Your task to perform on an android device: clear all cookies in the chrome app Image 0: 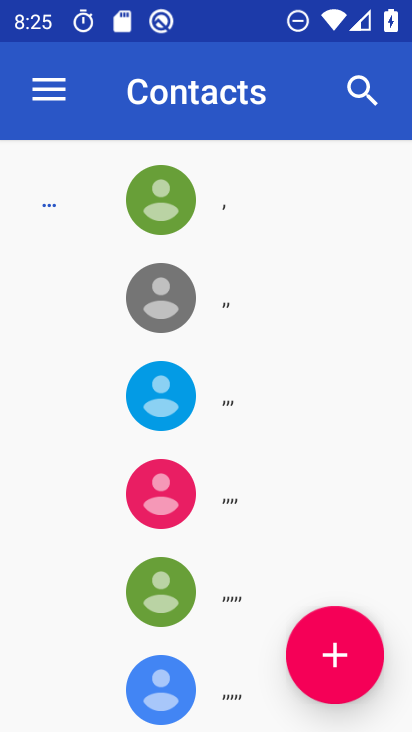
Step 0: press home button
Your task to perform on an android device: clear all cookies in the chrome app Image 1: 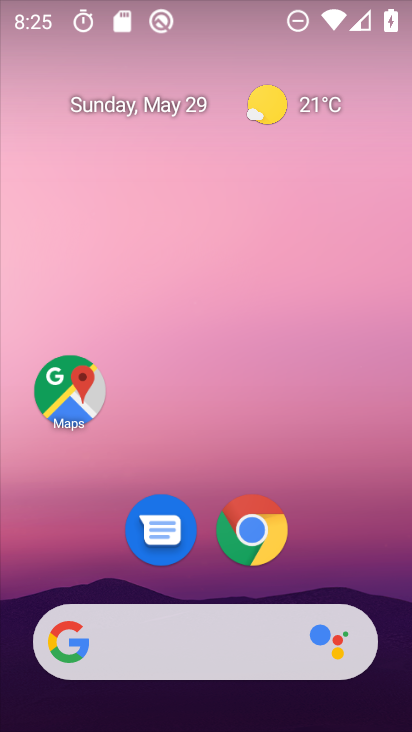
Step 1: drag from (282, 711) to (258, 160)
Your task to perform on an android device: clear all cookies in the chrome app Image 2: 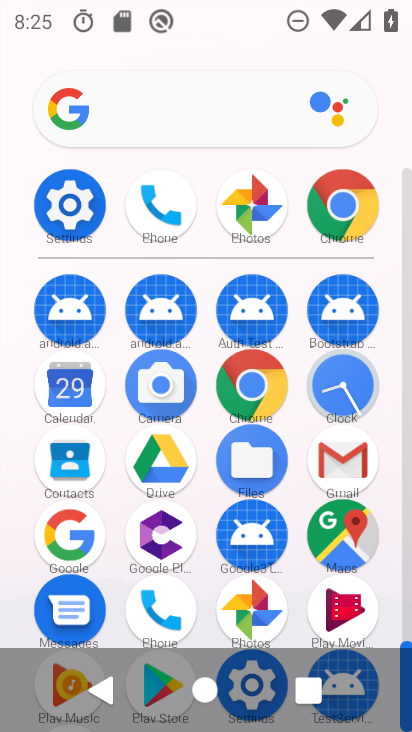
Step 2: click (342, 198)
Your task to perform on an android device: clear all cookies in the chrome app Image 3: 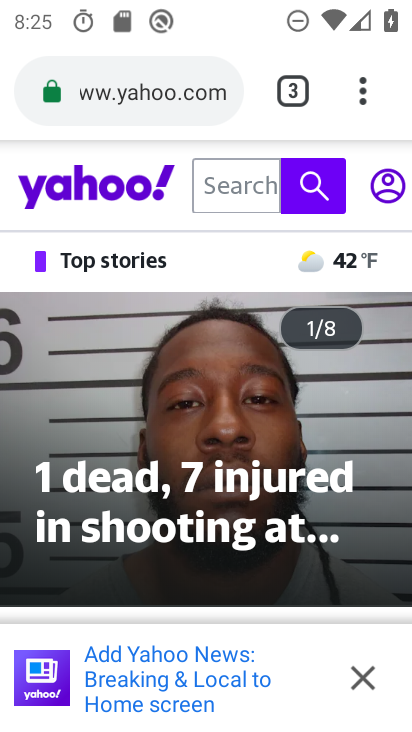
Step 3: click (352, 124)
Your task to perform on an android device: clear all cookies in the chrome app Image 4: 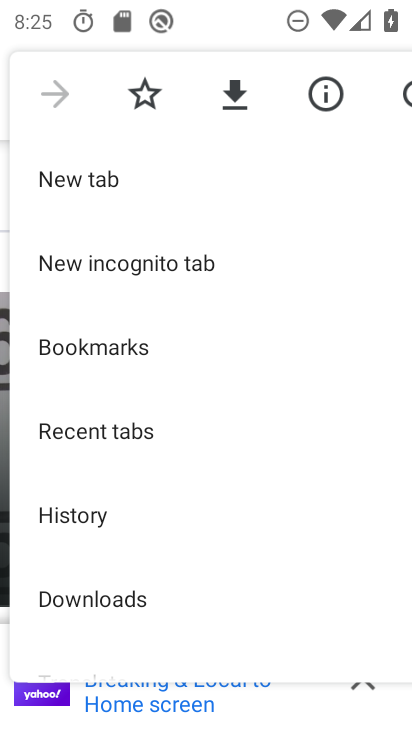
Step 4: click (84, 524)
Your task to perform on an android device: clear all cookies in the chrome app Image 5: 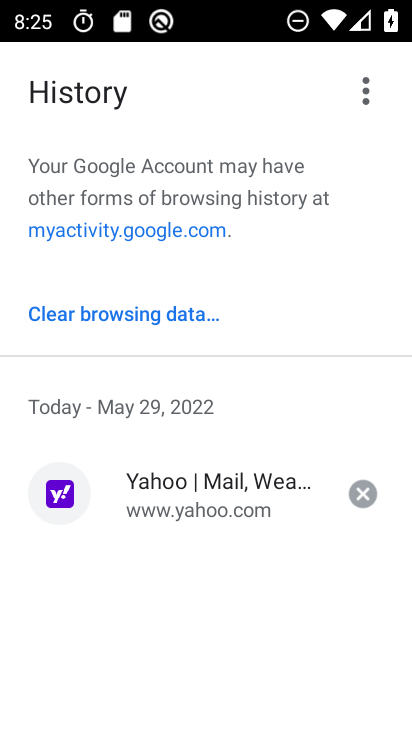
Step 5: click (101, 309)
Your task to perform on an android device: clear all cookies in the chrome app Image 6: 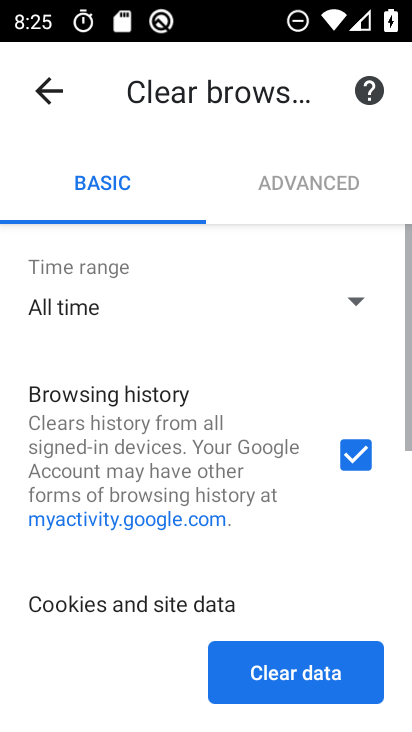
Step 6: drag from (230, 499) to (231, 247)
Your task to perform on an android device: clear all cookies in the chrome app Image 7: 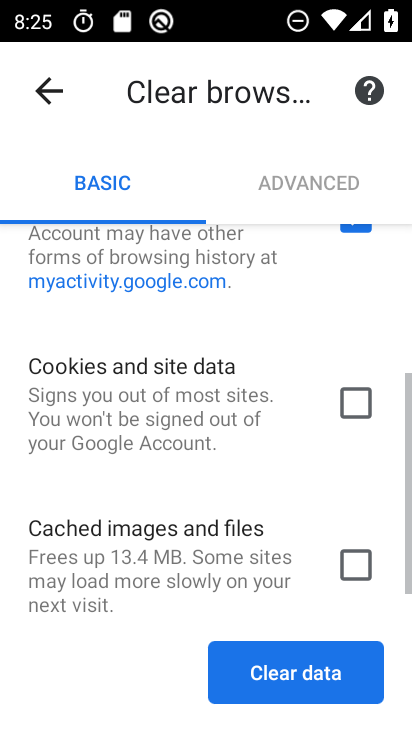
Step 7: click (347, 400)
Your task to perform on an android device: clear all cookies in the chrome app Image 8: 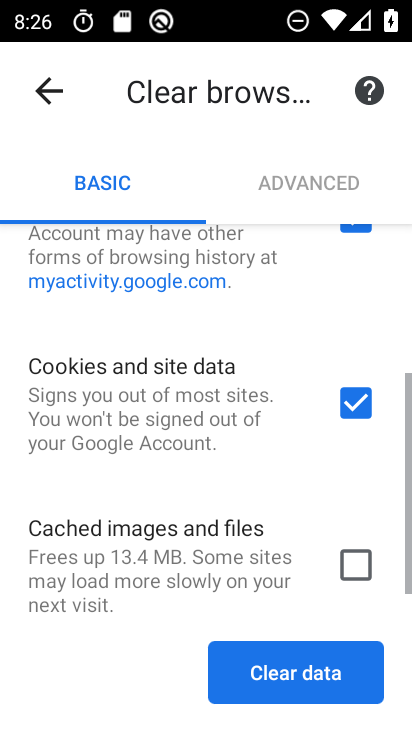
Step 8: click (282, 687)
Your task to perform on an android device: clear all cookies in the chrome app Image 9: 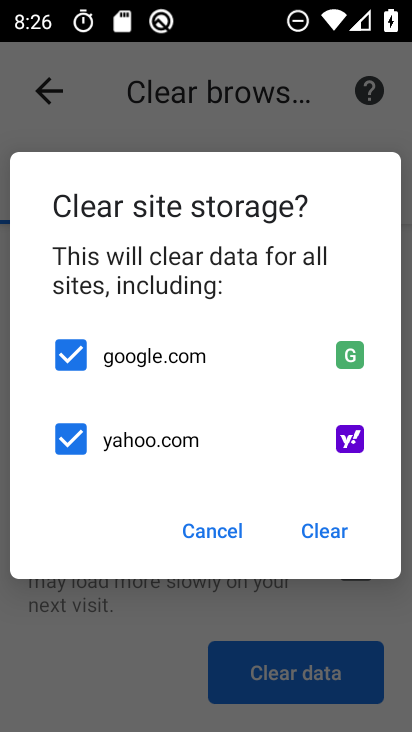
Step 9: click (317, 520)
Your task to perform on an android device: clear all cookies in the chrome app Image 10: 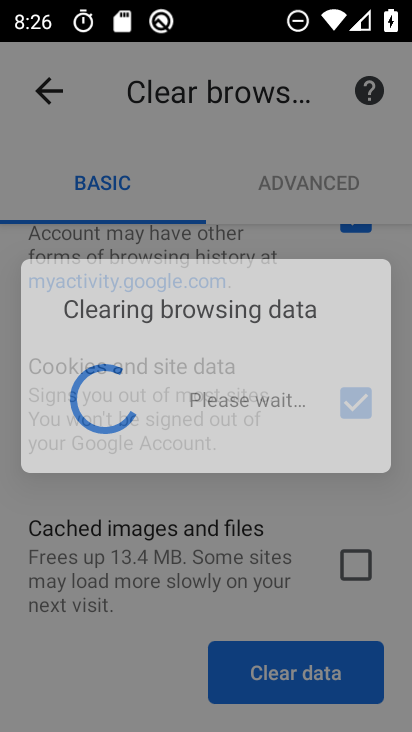
Step 10: task complete